Your task to perform on an android device: turn on showing notifications on the lock screen Image 0: 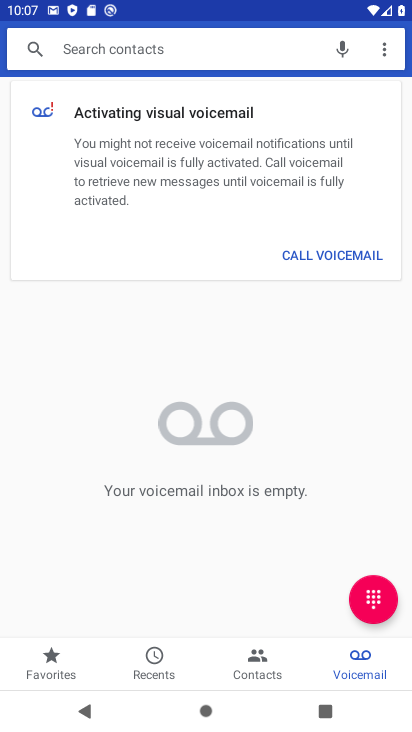
Step 0: press home button
Your task to perform on an android device: turn on showing notifications on the lock screen Image 1: 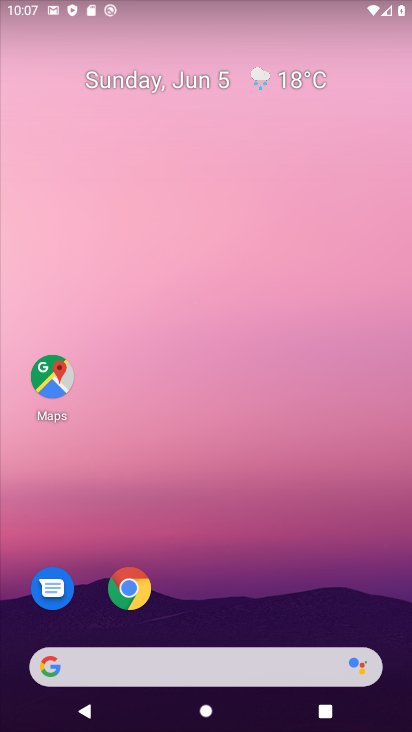
Step 1: drag from (303, 558) to (298, 204)
Your task to perform on an android device: turn on showing notifications on the lock screen Image 2: 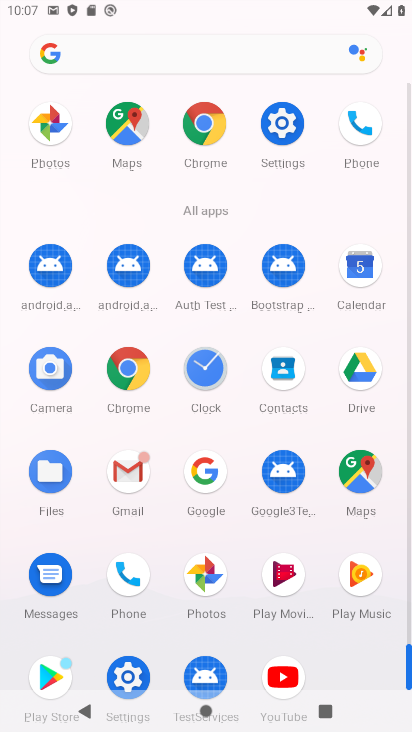
Step 2: click (128, 667)
Your task to perform on an android device: turn on showing notifications on the lock screen Image 3: 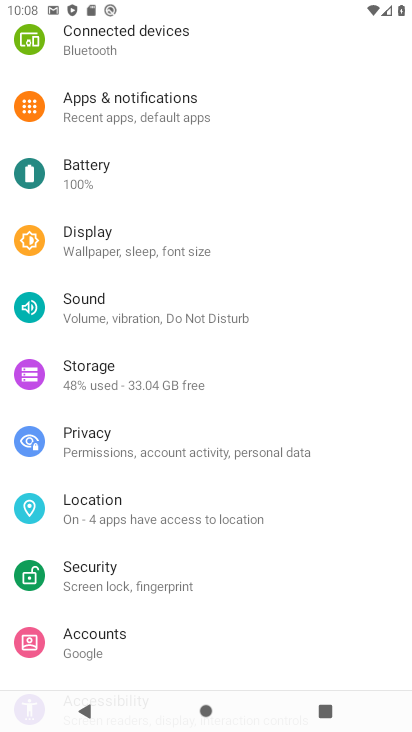
Step 3: click (179, 99)
Your task to perform on an android device: turn on showing notifications on the lock screen Image 4: 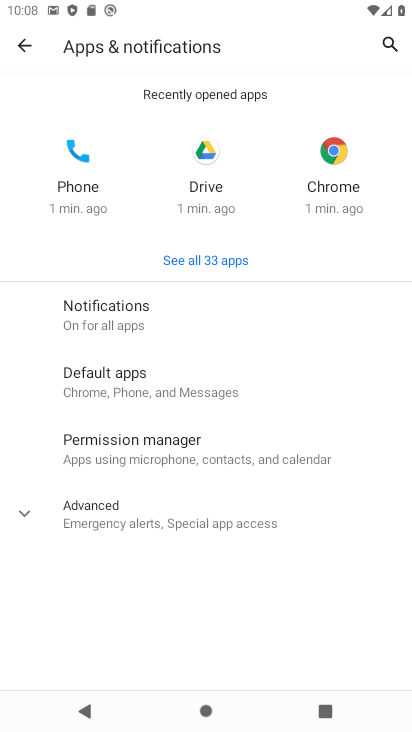
Step 4: click (174, 299)
Your task to perform on an android device: turn on showing notifications on the lock screen Image 5: 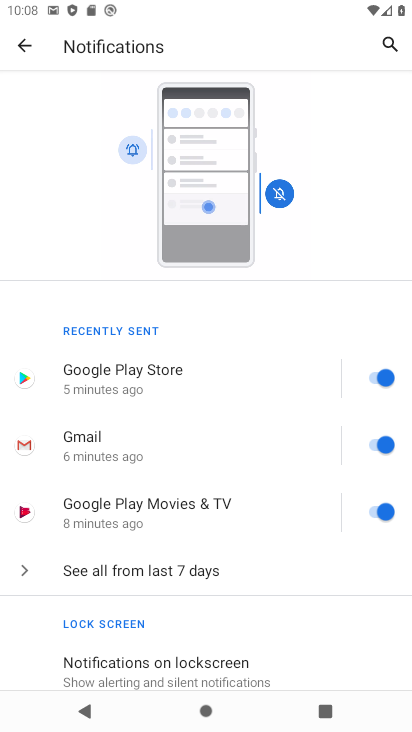
Step 5: click (180, 664)
Your task to perform on an android device: turn on showing notifications on the lock screen Image 6: 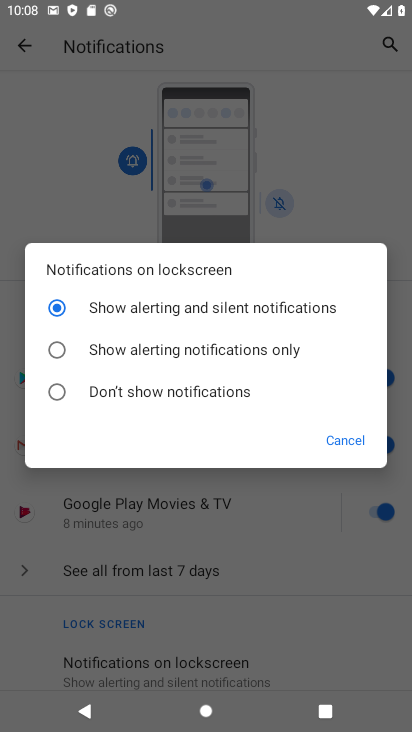
Step 6: task complete